Your task to perform on an android device: manage bookmarks in the chrome app Image 0: 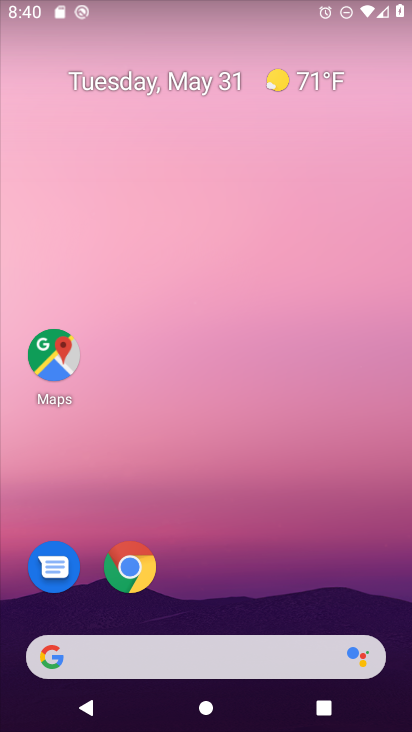
Step 0: click (122, 561)
Your task to perform on an android device: manage bookmarks in the chrome app Image 1: 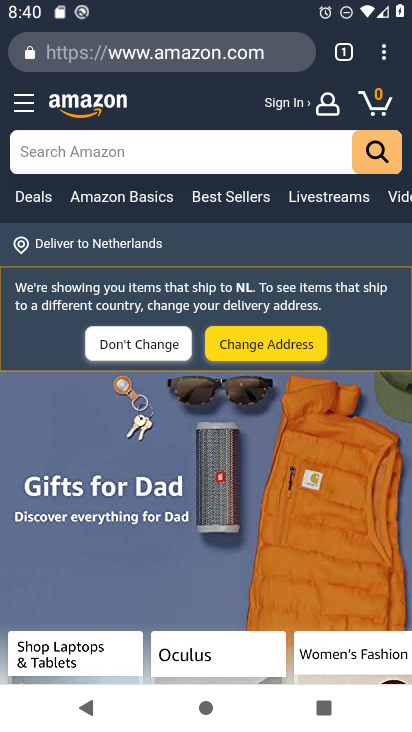
Step 1: click (389, 42)
Your task to perform on an android device: manage bookmarks in the chrome app Image 2: 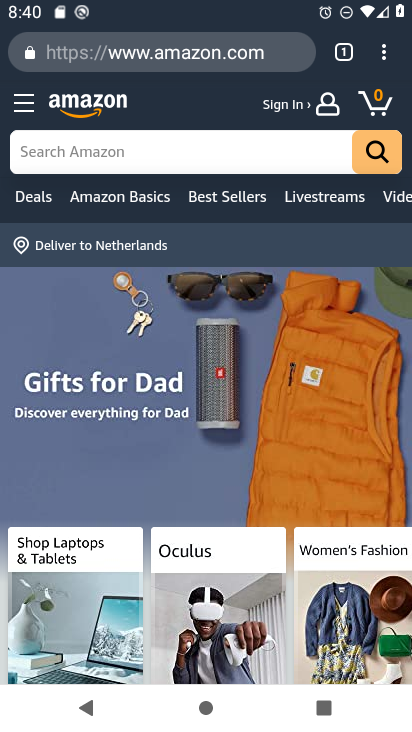
Step 2: click (384, 57)
Your task to perform on an android device: manage bookmarks in the chrome app Image 3: 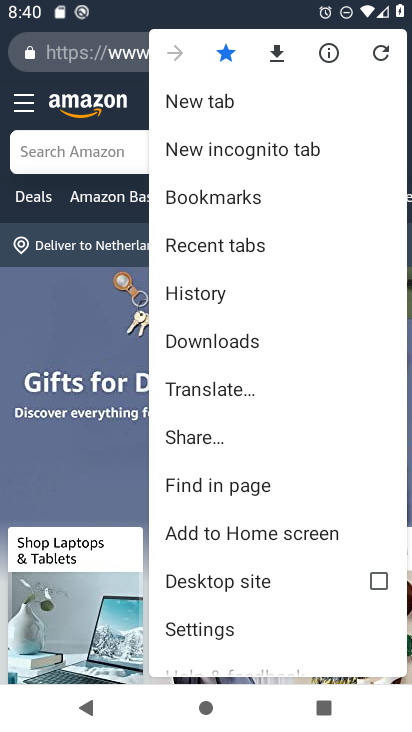
Step 3: click (198, 205)
Your task to perform on an android device: manage bookmarks in the chrome app Image 4: 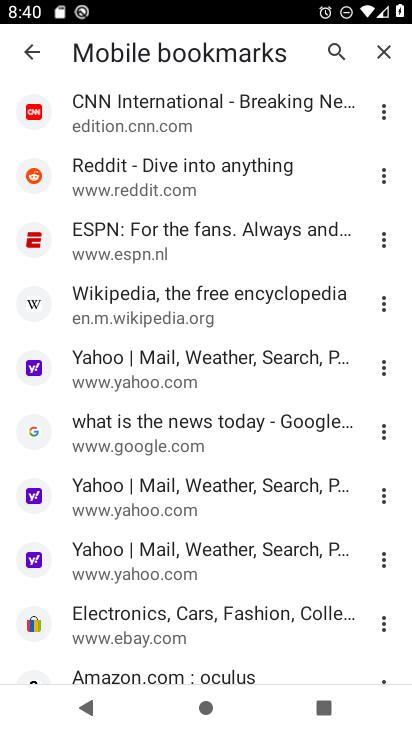
Step 4: click (144, 358)
Your task to perform on an android device: manage bookmarks in the chrome app Image 5: 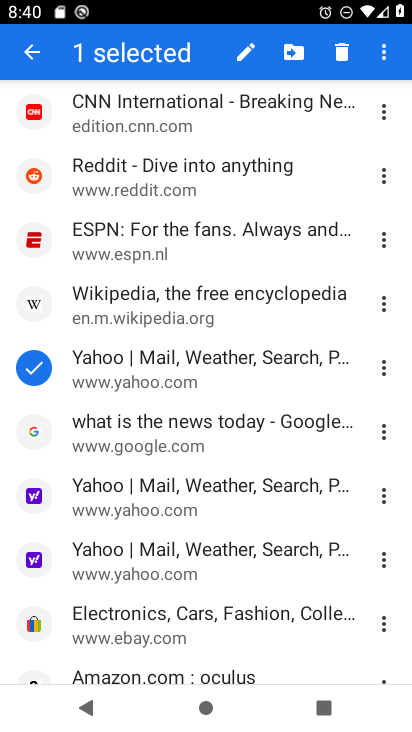
Step 5: click (353, 56)
Your task to perform on an android device: manage bookmarks in the chrome app Image 6: 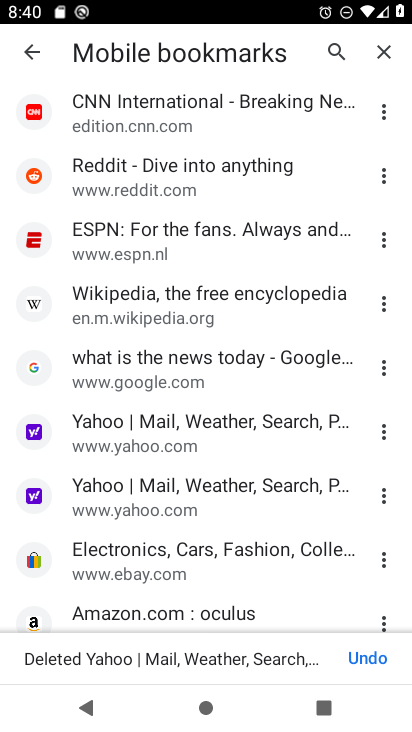
Step 6: click (118, 488)
Your task to perform on an android device: manage bookmarks in the chrome app Image 7: 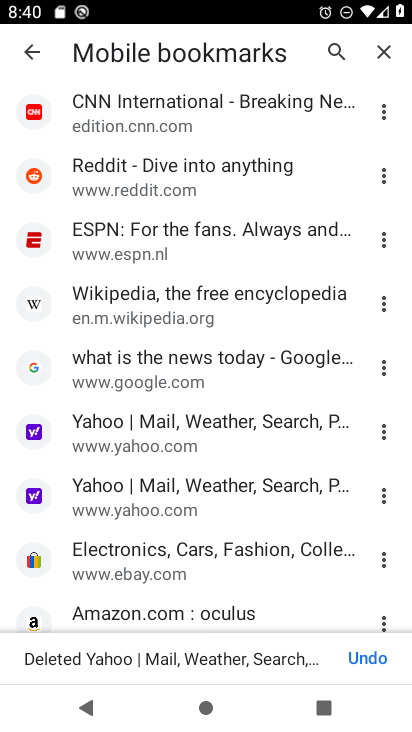
Step 7: click (118, 488)
Your task to perform on an android device: manage bookmarks in the chrome app Image 8: 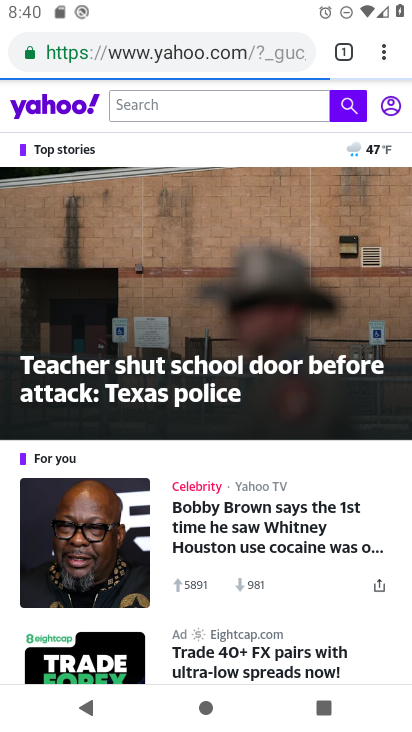
Step 8: task complete